Your task to perform on an android device: turn off data saver in the chrome app Image 0: 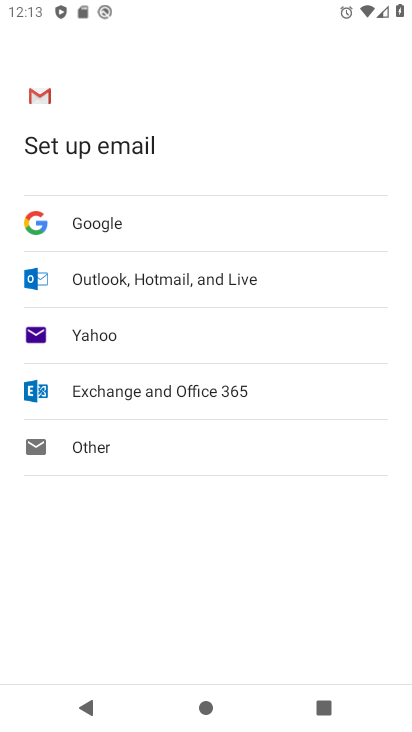
Step 0: press home button
Your task to perform on an android device: turn off data saver in the chrome app Image 1: 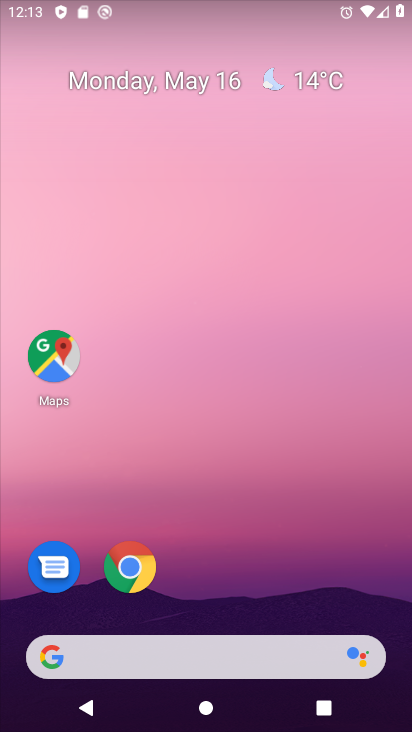
Step 1: click (133, 570)
Your task to perform on an android device: turn off data saver in the chrome app Image 2: 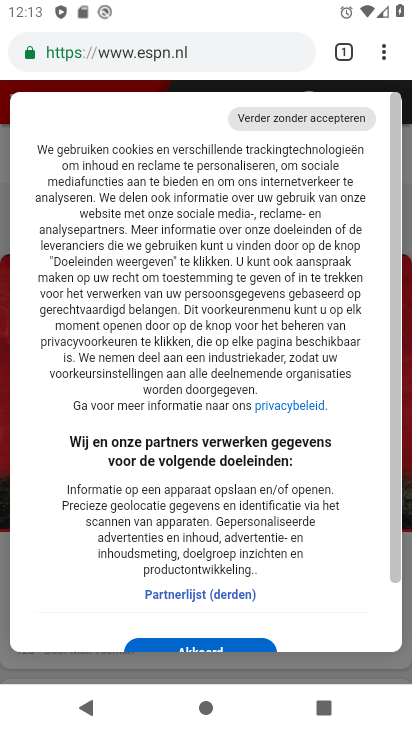
Step 2: click (380, 46)
Your task to perform on an android device: turn off data saver in the chrome app Image 3: 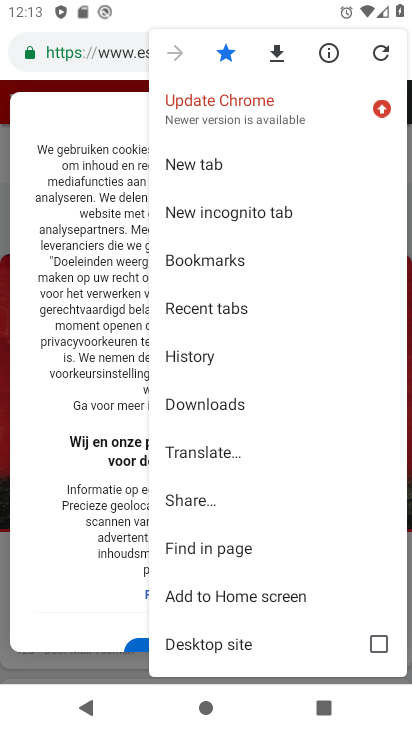
Step 3: drag from (236, 591) to (324, 264)
Your task to perform on an android device: turn off data saver in the chrome app Image 4: 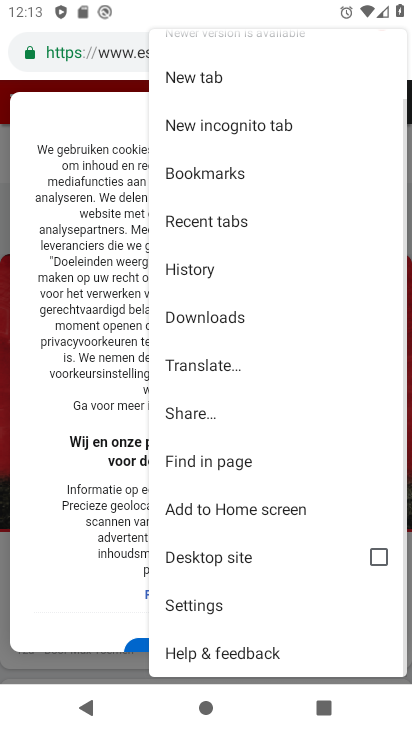
Step 4: click (198, 596)
Your task to perform on an android device: turn off data saver in the chrome app Image 5: 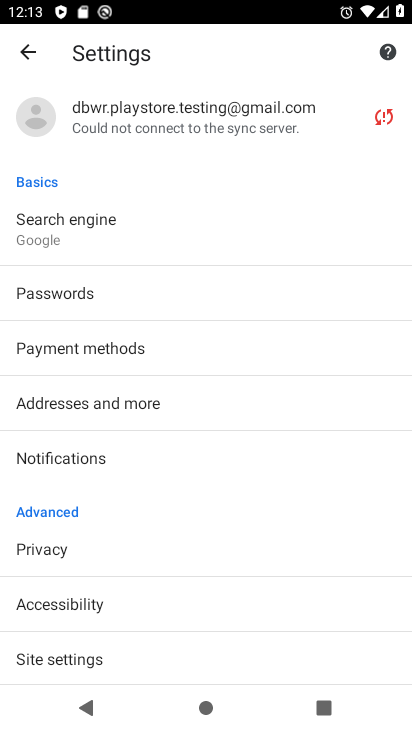
Step 5: drag from (136, 661) to (190, 461)
Your task to perform on an android device: turn off data saver in the chrome app Image 6: 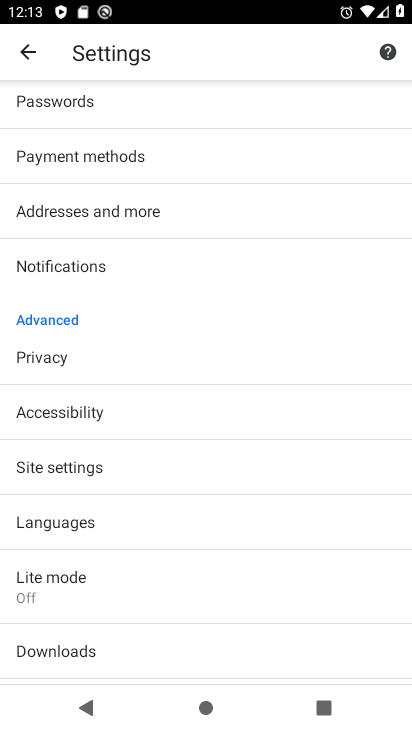
Step 6: click (114, 573)
Your task to perform on an android device: turn off data saver in the chrome app Image 7: 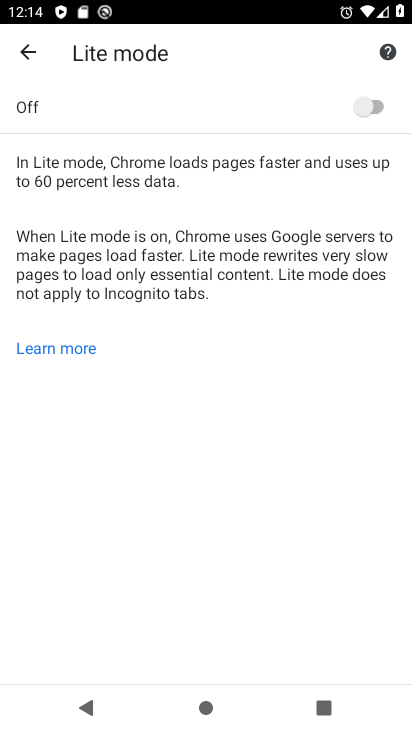
Step 7: task complete